Your task to perform on an android device: turn on bluetooth scan Image 0: 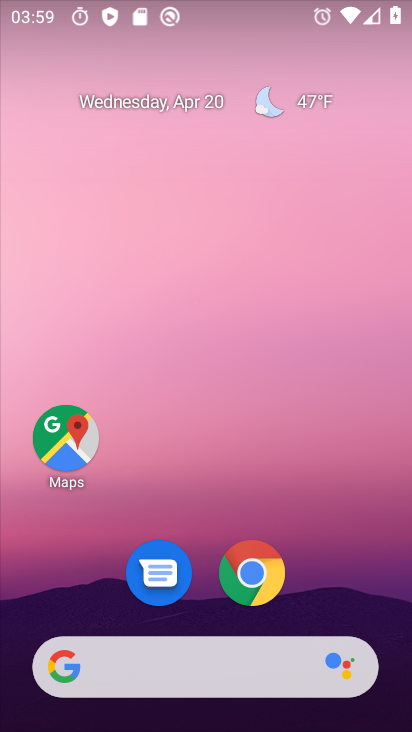
Step 0: drag from (212, 723) to (212, 146)
Your task to perform on an android device: turn on bluetooth scan Image 1: 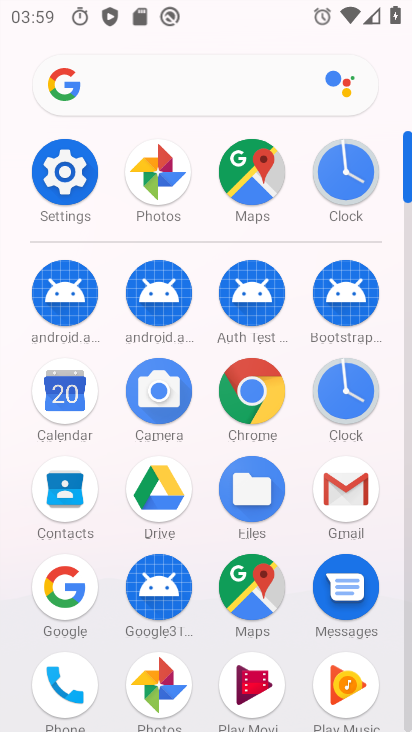
Step 1: click (62, 168)
Your task to perform on an android device: turn on bluetooth scan Image 2: 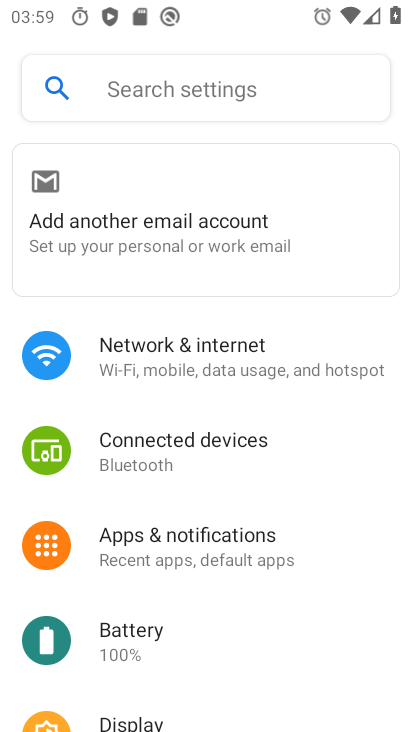
Step 2: drag from (160, 681) to (154, 303)
Your task to perform on an android device: turn on bluetooth scan Image 3: 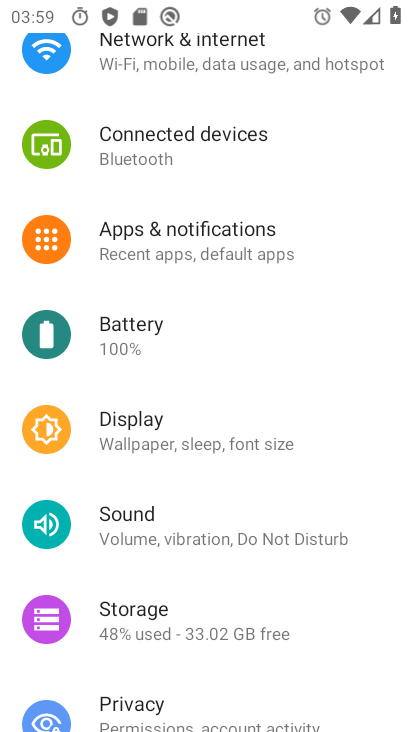
Step 3: drag from (180, 682) to (197, 326)
Your task to perform on an android device: turn on bluetooth scan Image 4: 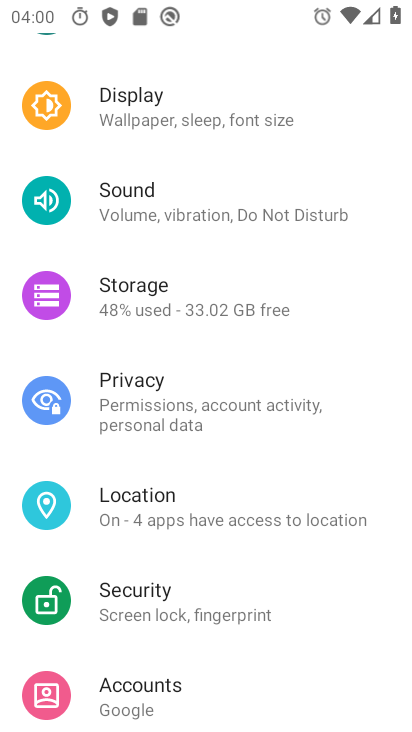
Step 4: click (137, 511)
Your task to perform on an android device: turn on bluetooth scan Image 5: 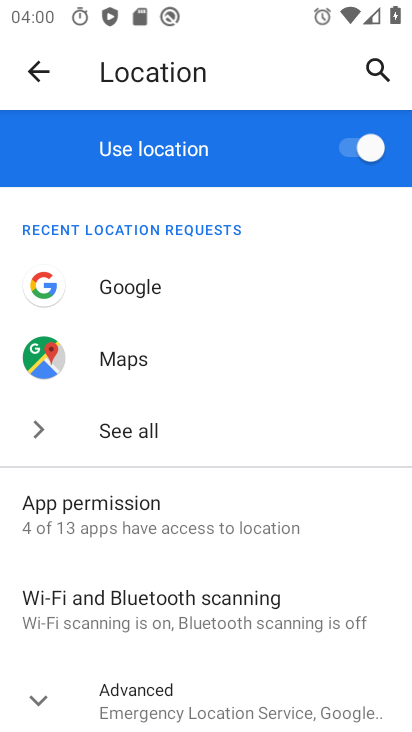
Step 5: click (148, 603)
Your task to perform on an android device: turn on bluetooth scan Image 6: 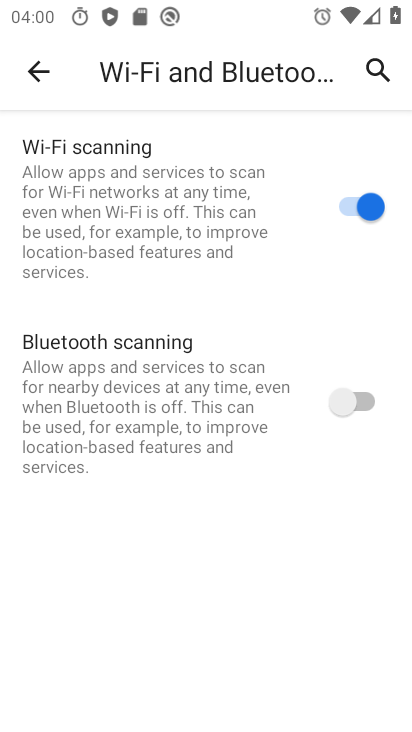
Step 6: click (362, 399)
Your task to perform on an android device: turn on bluetooth scan Image 7: 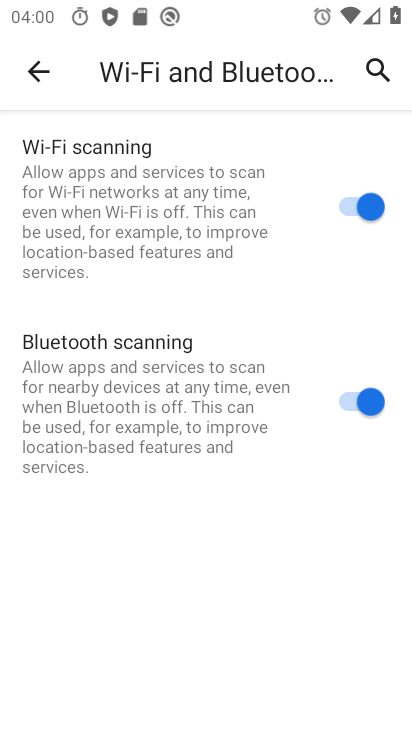
Step 7: task complete